Your task to perform on an android device: Go to Amazon Image 0: 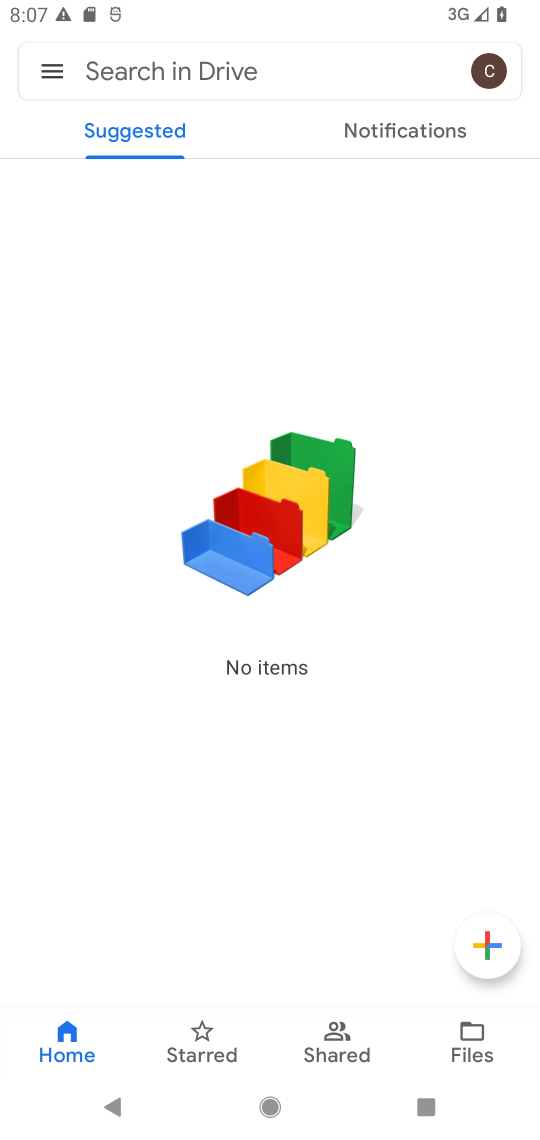
Step 0: press home button
Your task to perform on an android device: Go to Amazon Image 1: 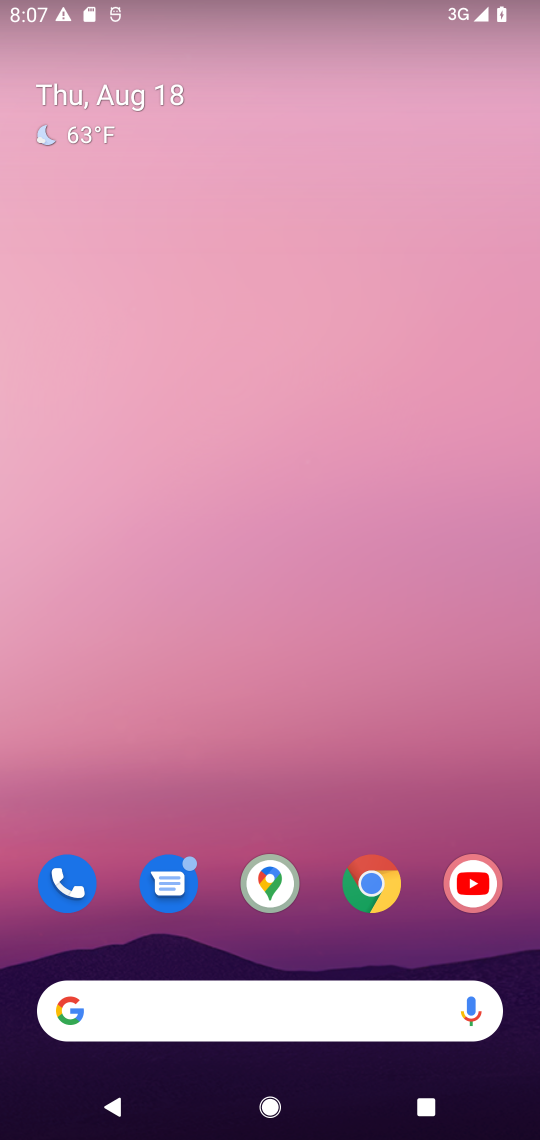
Step 1: click (111, 992)
Your task to perform on an android device: Go to Amazon Image 2: 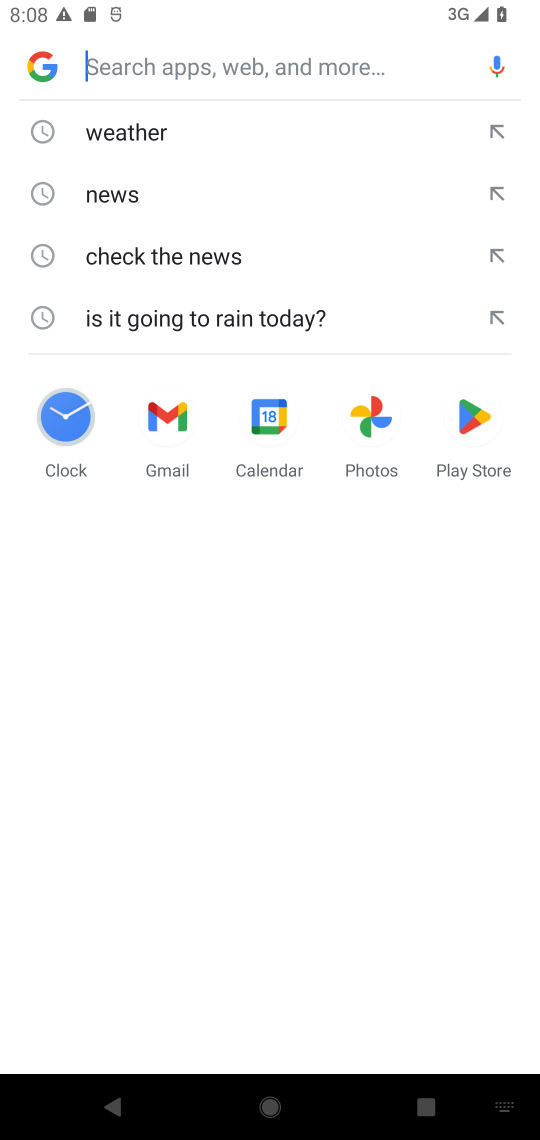
Step 2: type "Amazon"
Your task to perform on an android device: Go to Amazon Image 3: 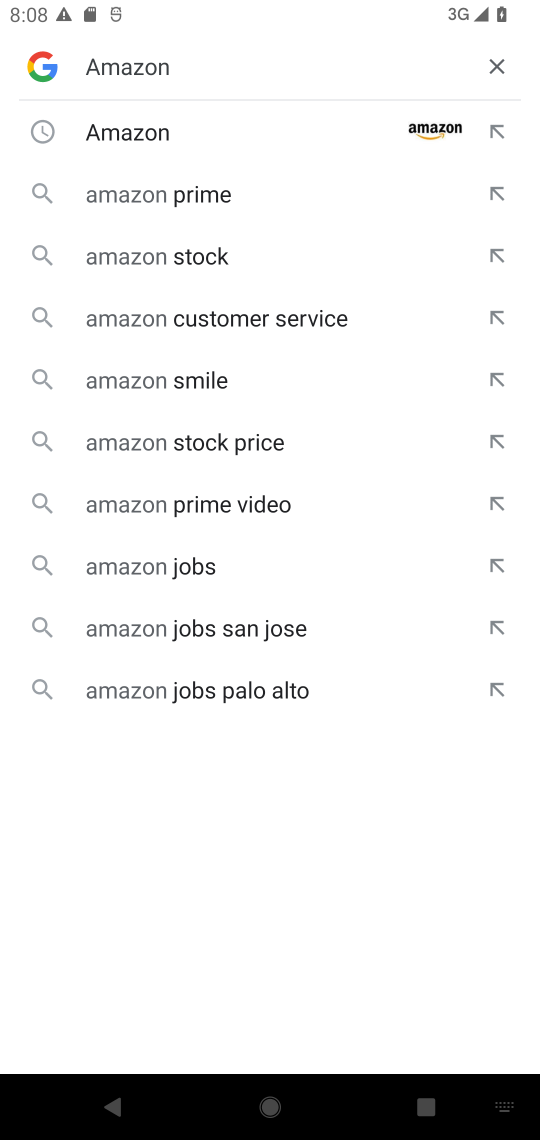
Step 3: click (122, 134)
Your task to perform on an android device: Go to Amazon Image 4: 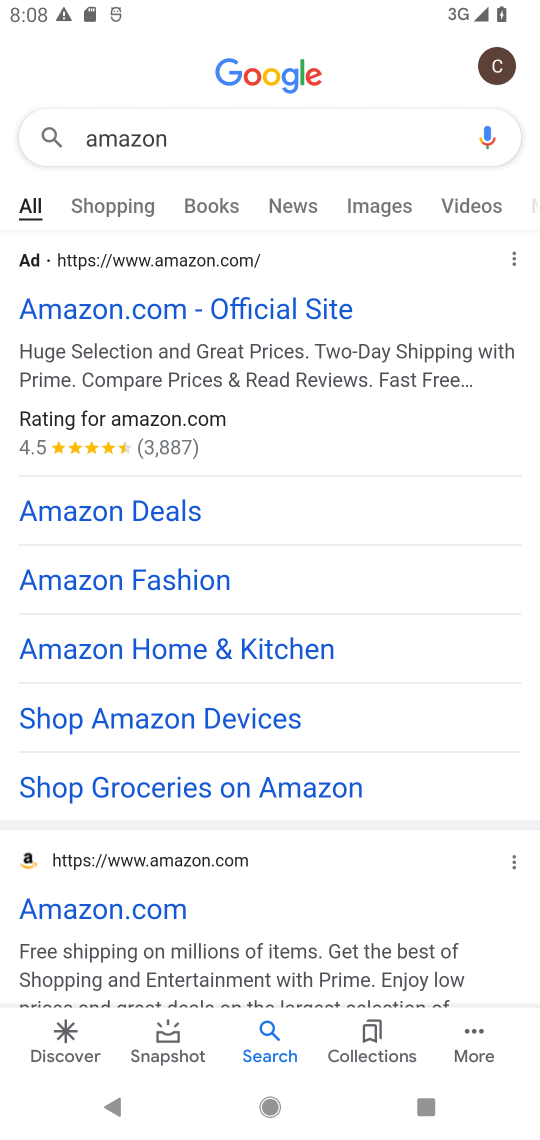
Step 4: task complete